Your task to perform on an android device: Turn off the flashlight Image 0: 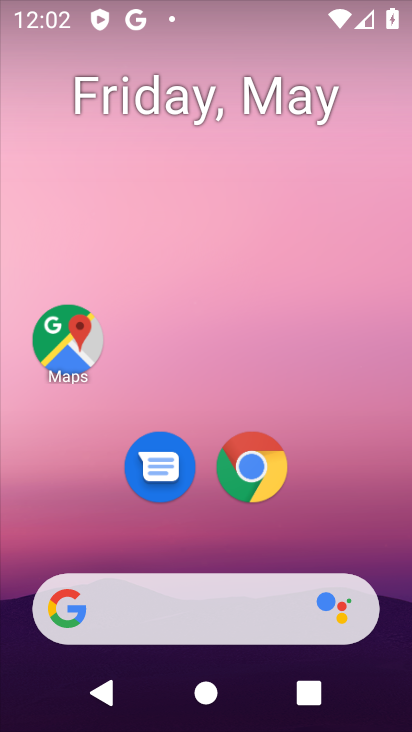
Step 0: drag from (325, 507) to (266, 197)
Your task to perform on an android device: Turn off the flashlight Image 1: 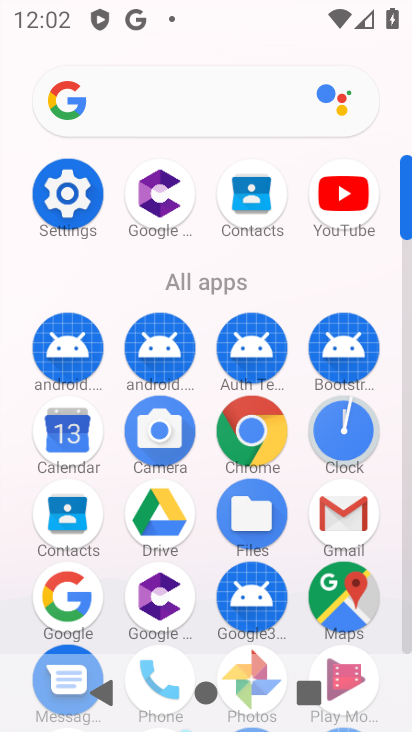
Step 1: click (69, 193)
Your task to perform on an android device: Turn off the flashlight Image 2: 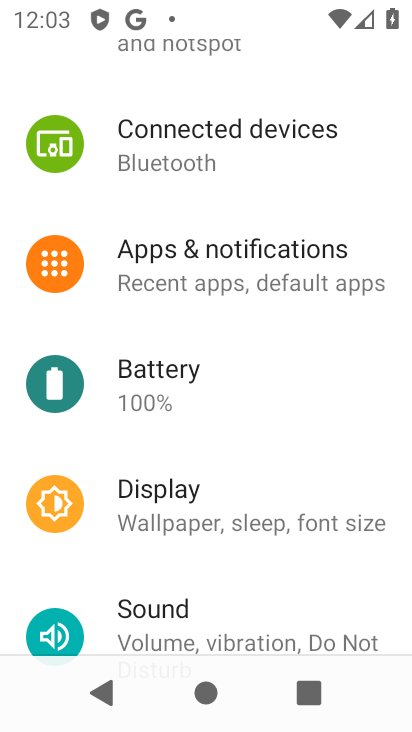
Step 2: drag from (276, 499) to (304, 393)
Your task to perform on an android device: Turn off the flashlight Image 3: 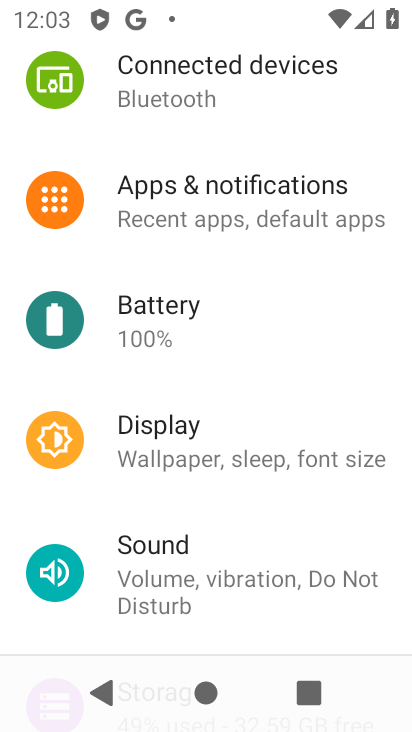
Step 3: drag from (282, 512) to (302, 394)
Your task to perform on an android device: Turn off the flashlight Image 4: 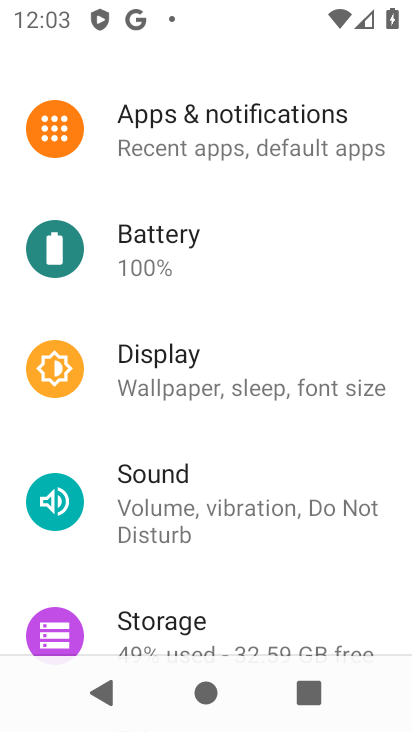
Step 4: click (277, 376)
Your task to perform on an android device: Turn off the flashlight Image 5: 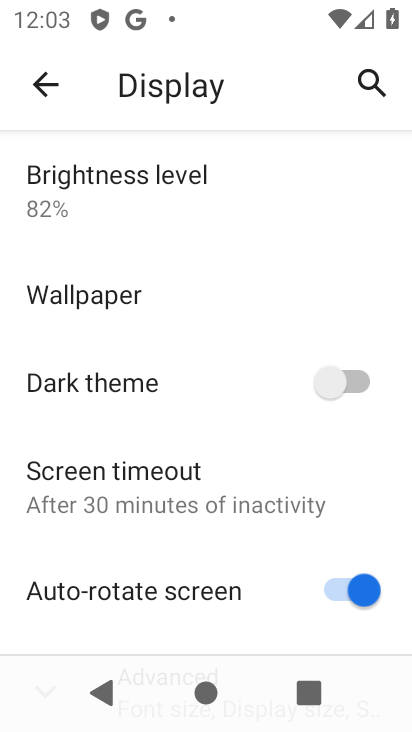
Step 5: drag from (173, 474) to (201, 349)
Your task to perform on an android device: Turn off the flashlight Image 6: 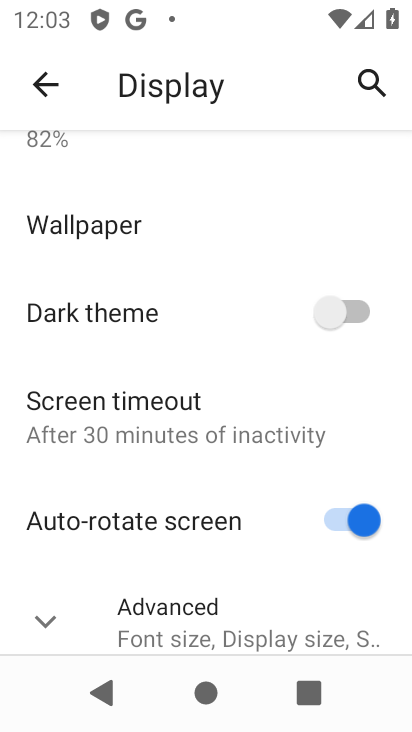
Step 6: drag from (99, 496) to (160, 334)
Your task to perform on an android device: Turn off the flashlight Image 7: 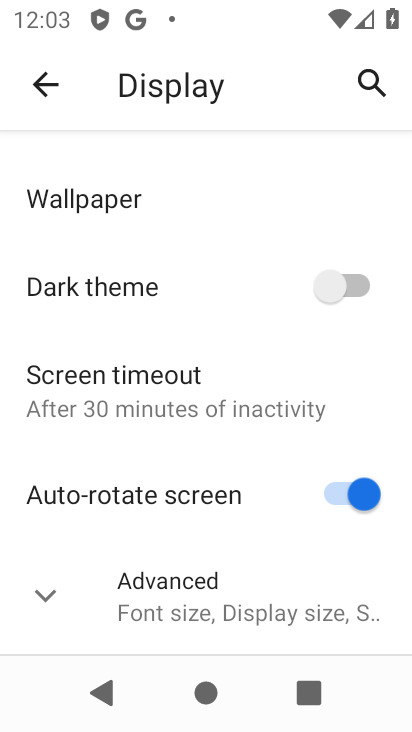
Step 7: click (146, 612)
Your task to perform on an android device: Turn off the flashlight Image 8: 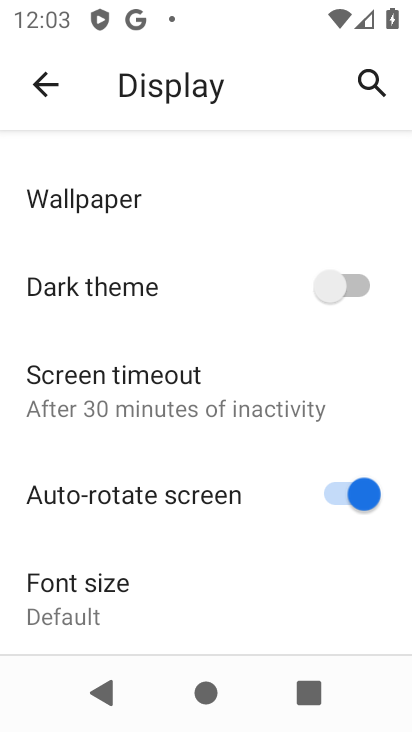
Step 8: task complete